Your task to perform on an android device: change notification settings in the gmail app Image 0: 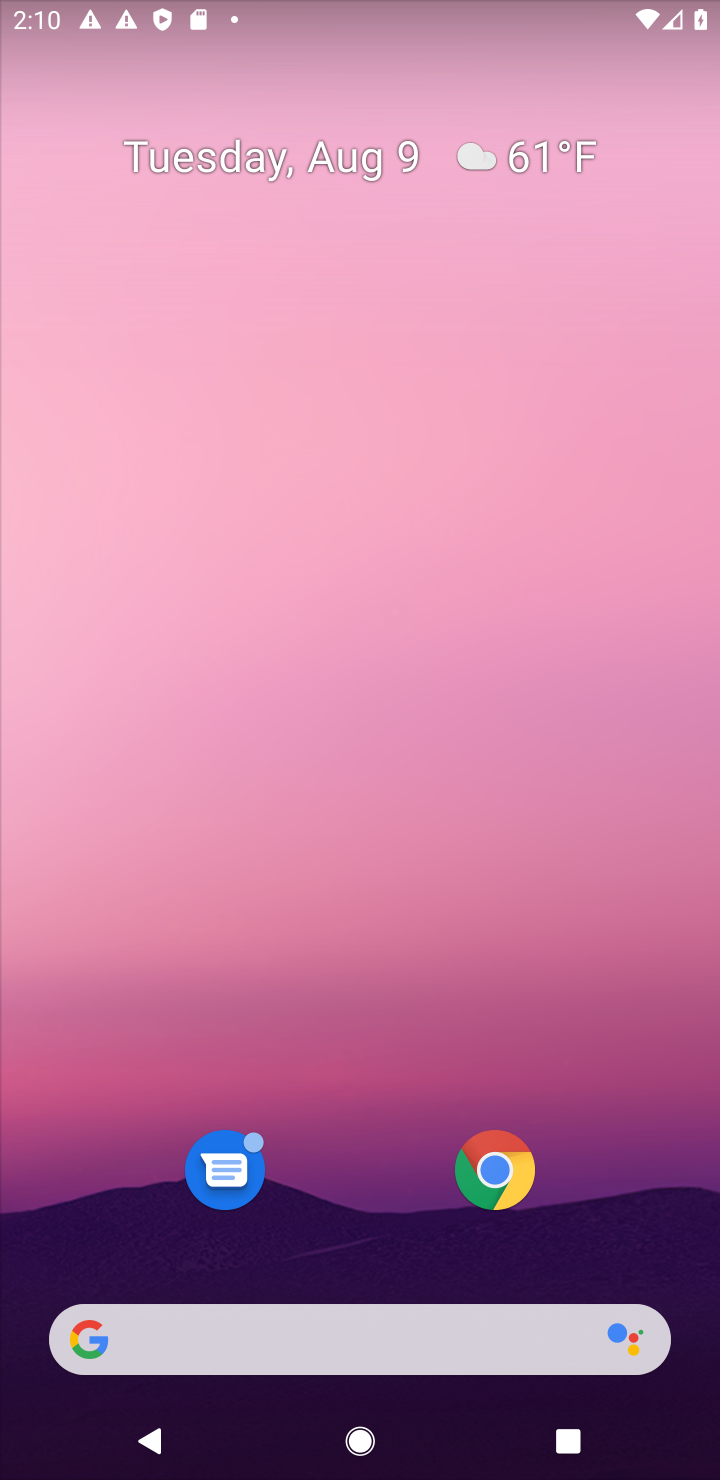
Step 0: drag from (387, 1236) to (430, 23)
Your task to perform on an android device: change notification settings in the gmail app Image 1: 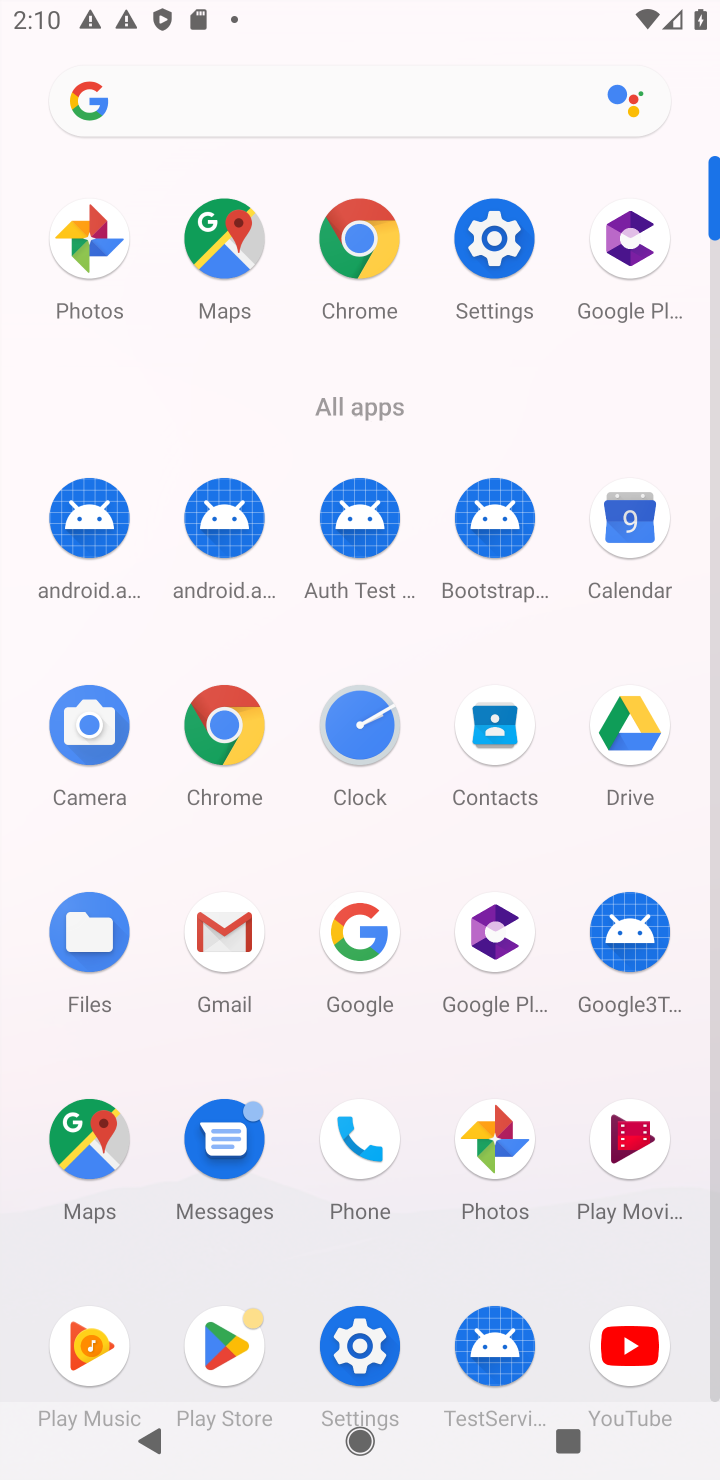
Step 1: click (225, 965)
Your task to perform on an android device: change notification settings in the gmail app Image 2: 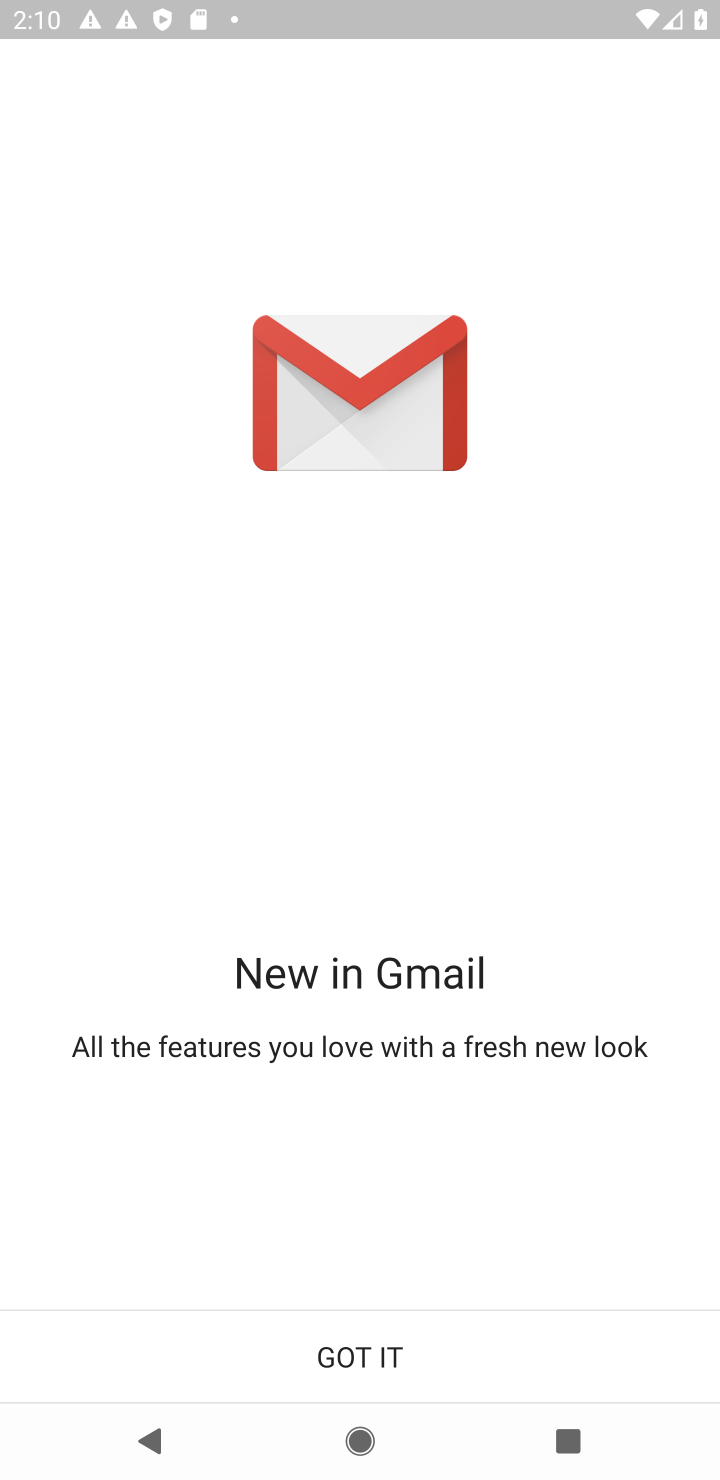
Step 2: click (381, 1367)
Your task to perform on an android device: change notification settings in the gmail app Image 3: 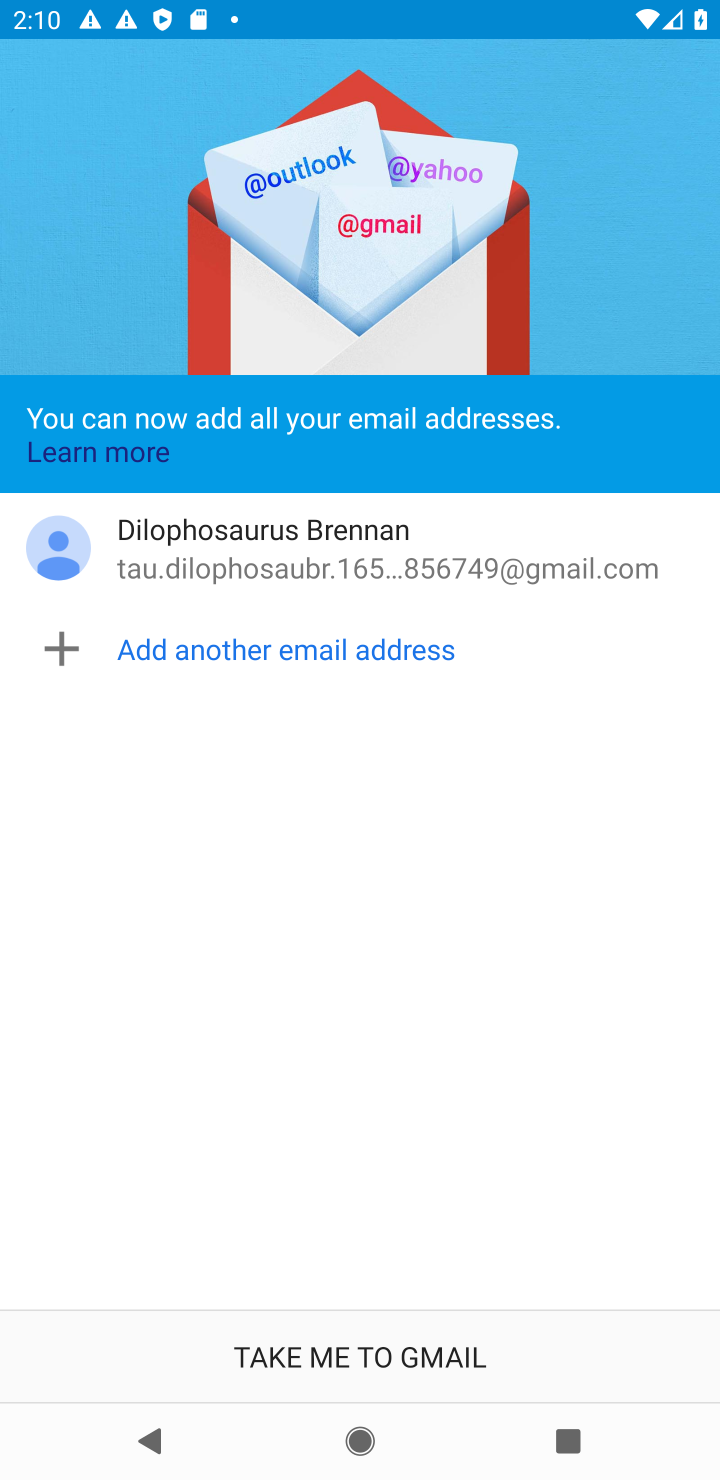
Step 3: click (403, 1346)
Your task to perform on an android device: change notification settings in the gmail app Image 4: 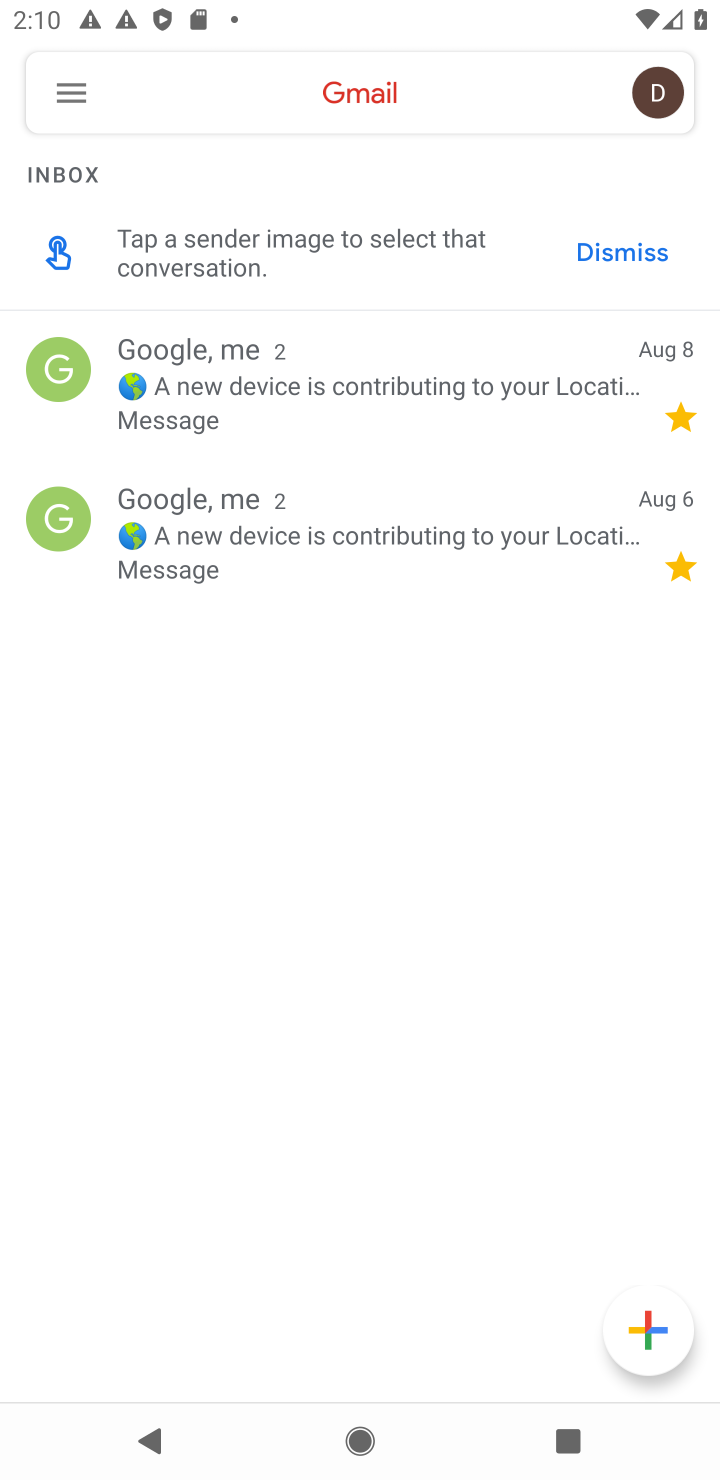
Step 4: click (62, 84)
Your task to perform on an android device: change notification settings in the gmail app Image 5: 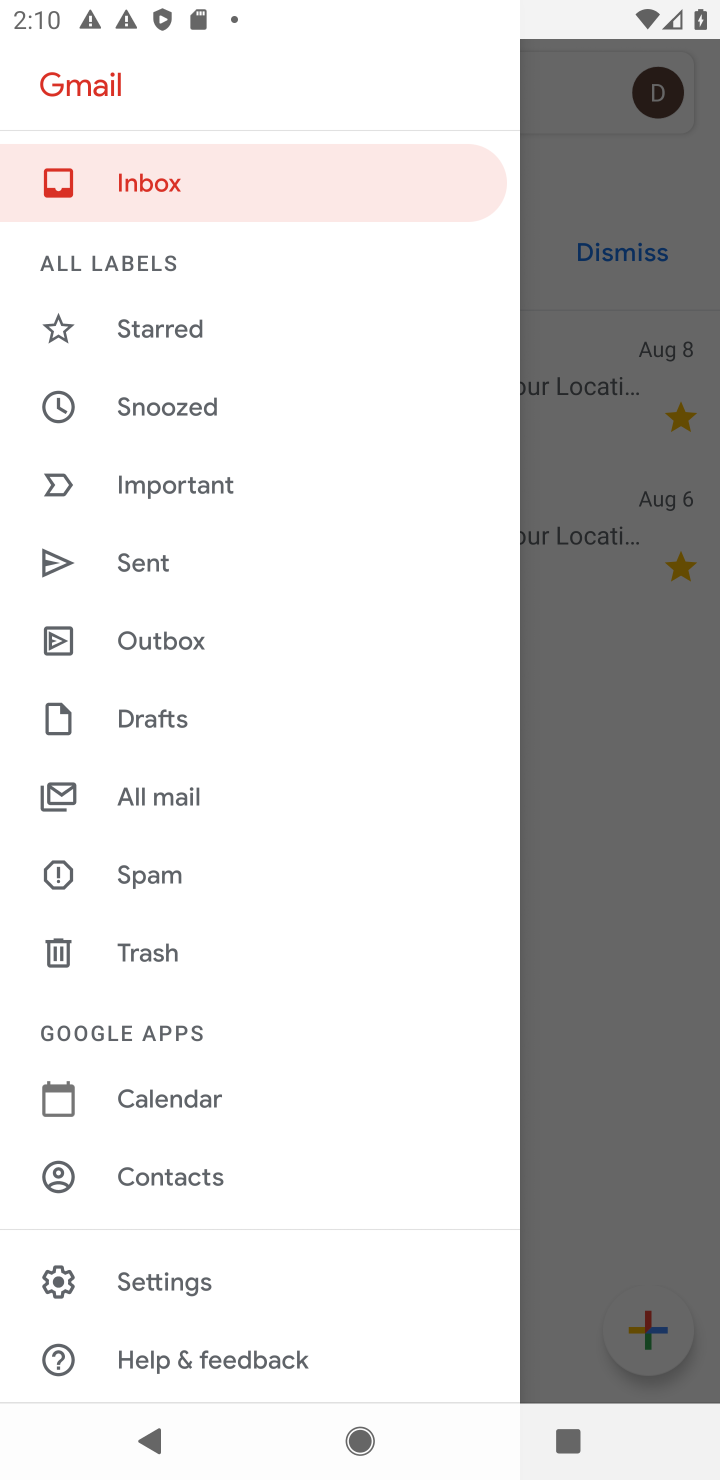
Step 5: click (177, 1295)
Your task to perform on an android device: change notification settings in the gmail app Image 6: 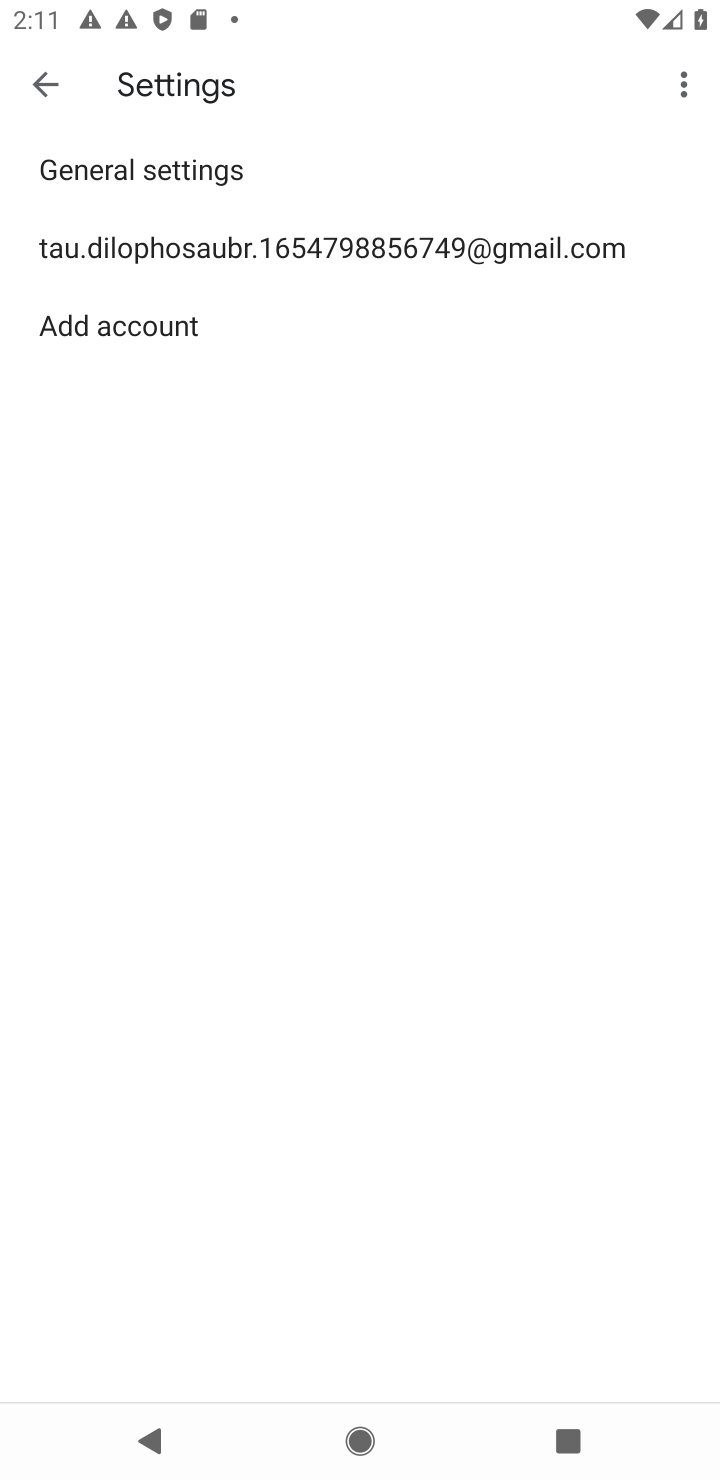
Step 6: click (169, 170)
Your task to perform on an android device: change notification settings in the gmail app Image 7: 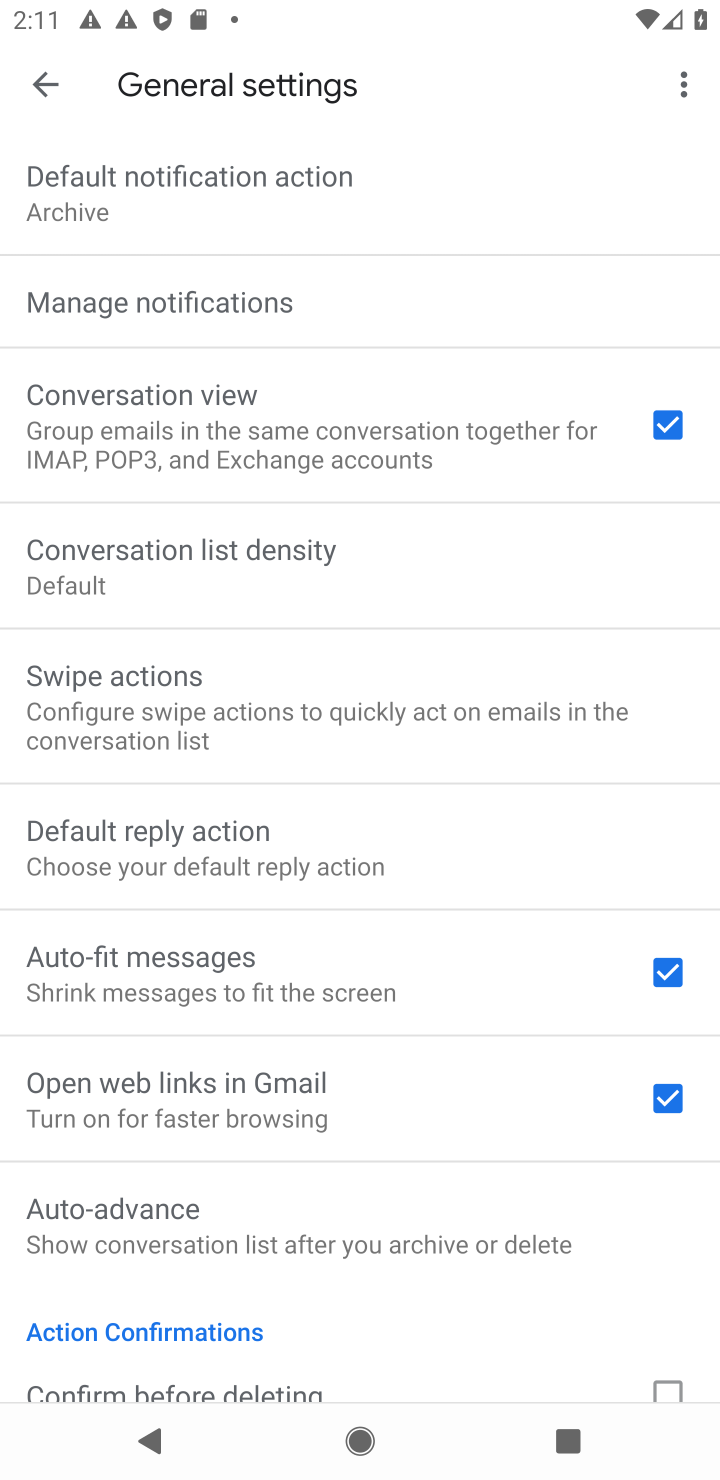
Step 7: drag from (338, 1187) to (390, 476)
Your task to perform on an android device: change notification settings in the gmail app Image 8: 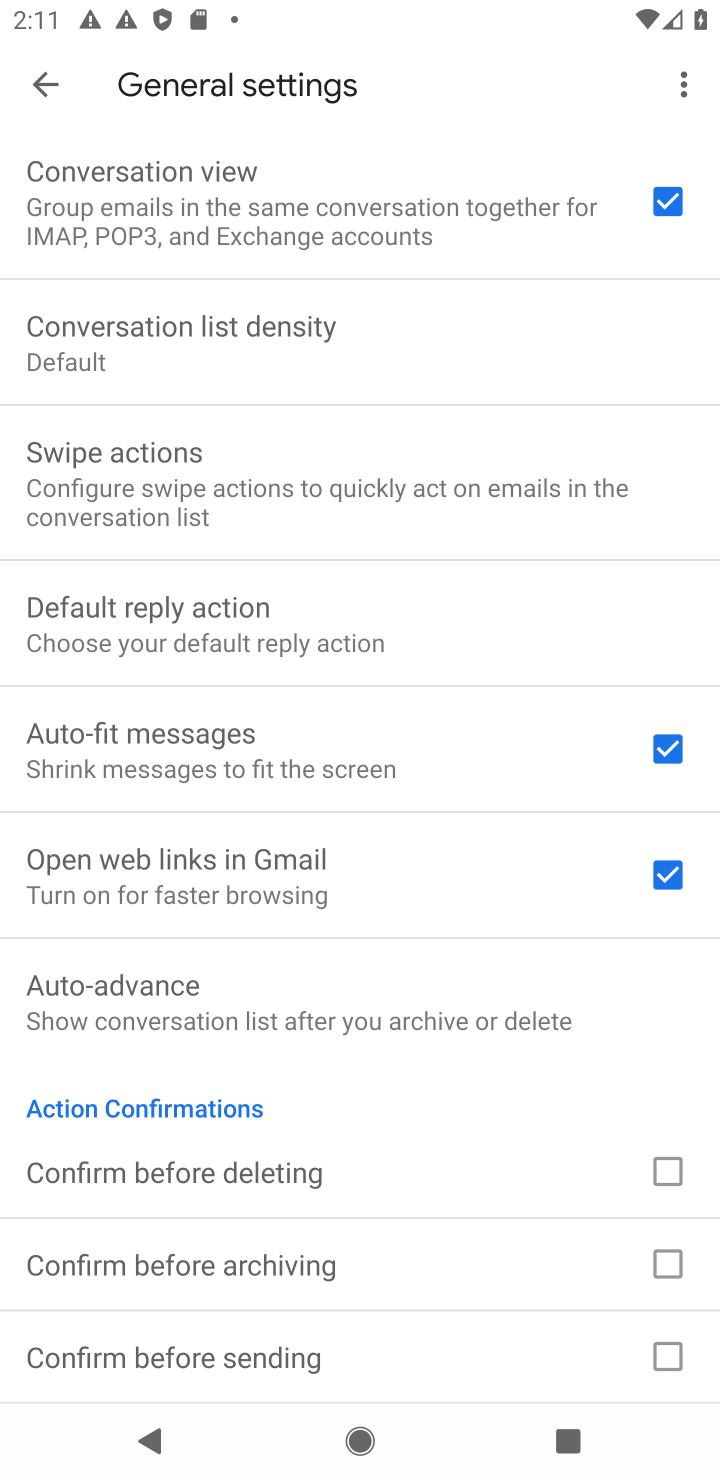
Step 8: drag from (242, 398) to (154, 1217)
Your task to perform on an android device: change notification settings in the gmail app Image 9: 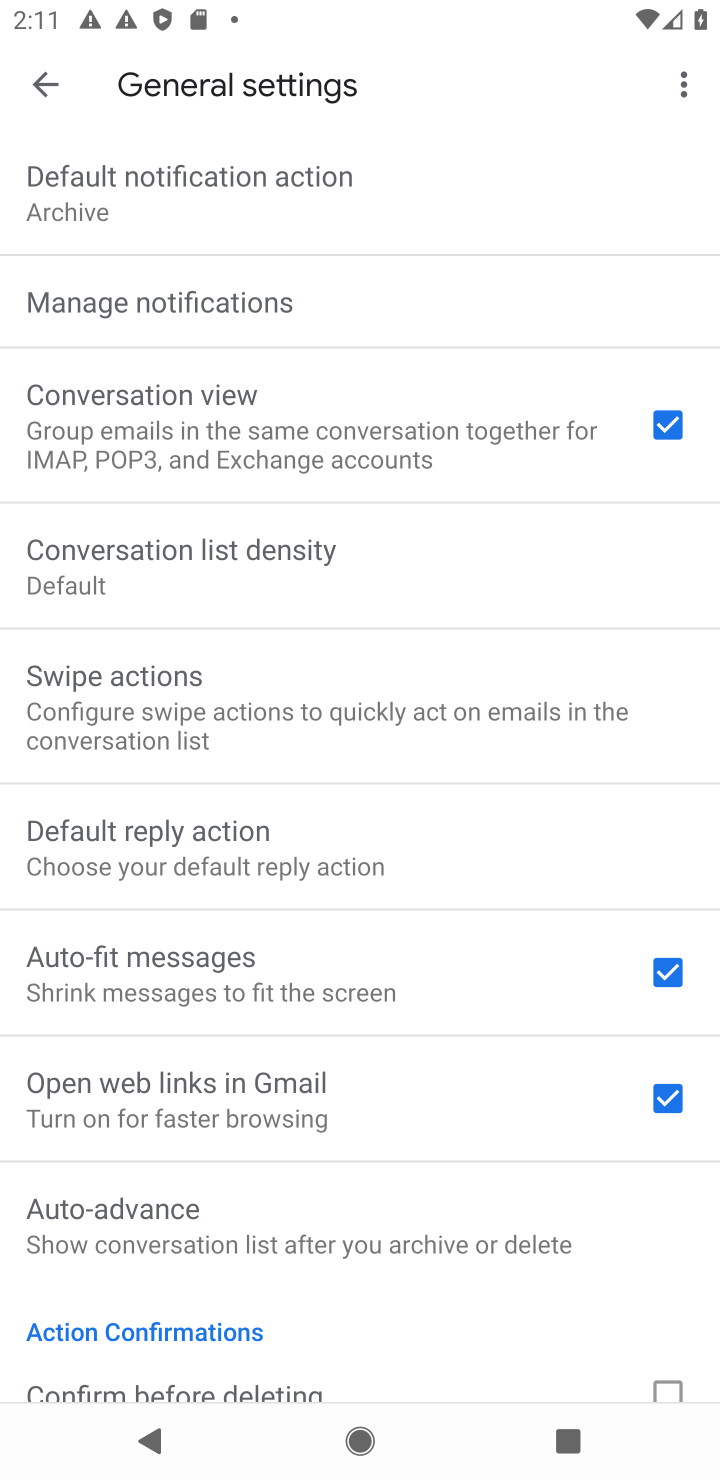
Step 9: click (181, 312)
Your task to perform on an android device: change notification settings in the gmail app Image 10: 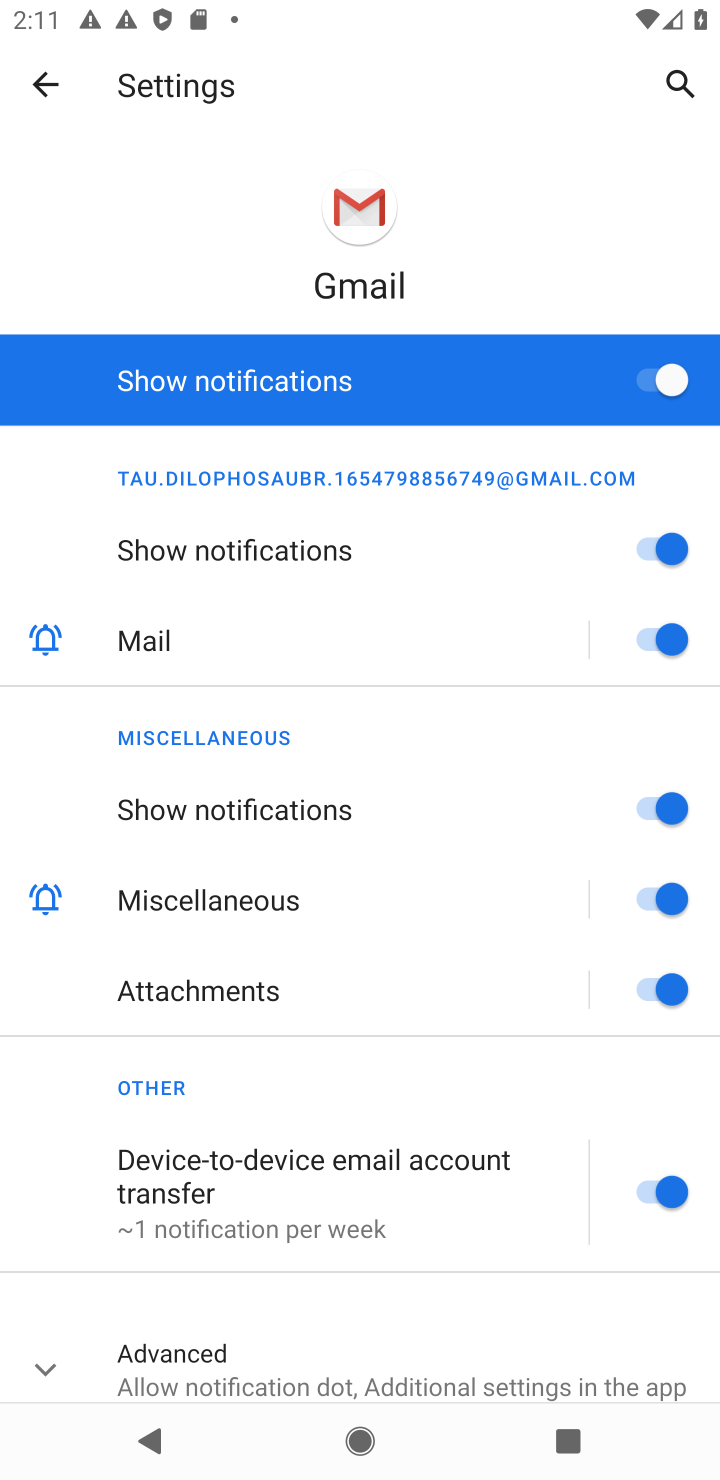
Step 10: click (614, 402)
Your task to perform on an android device: change notification settings in the gmail app Image 11: 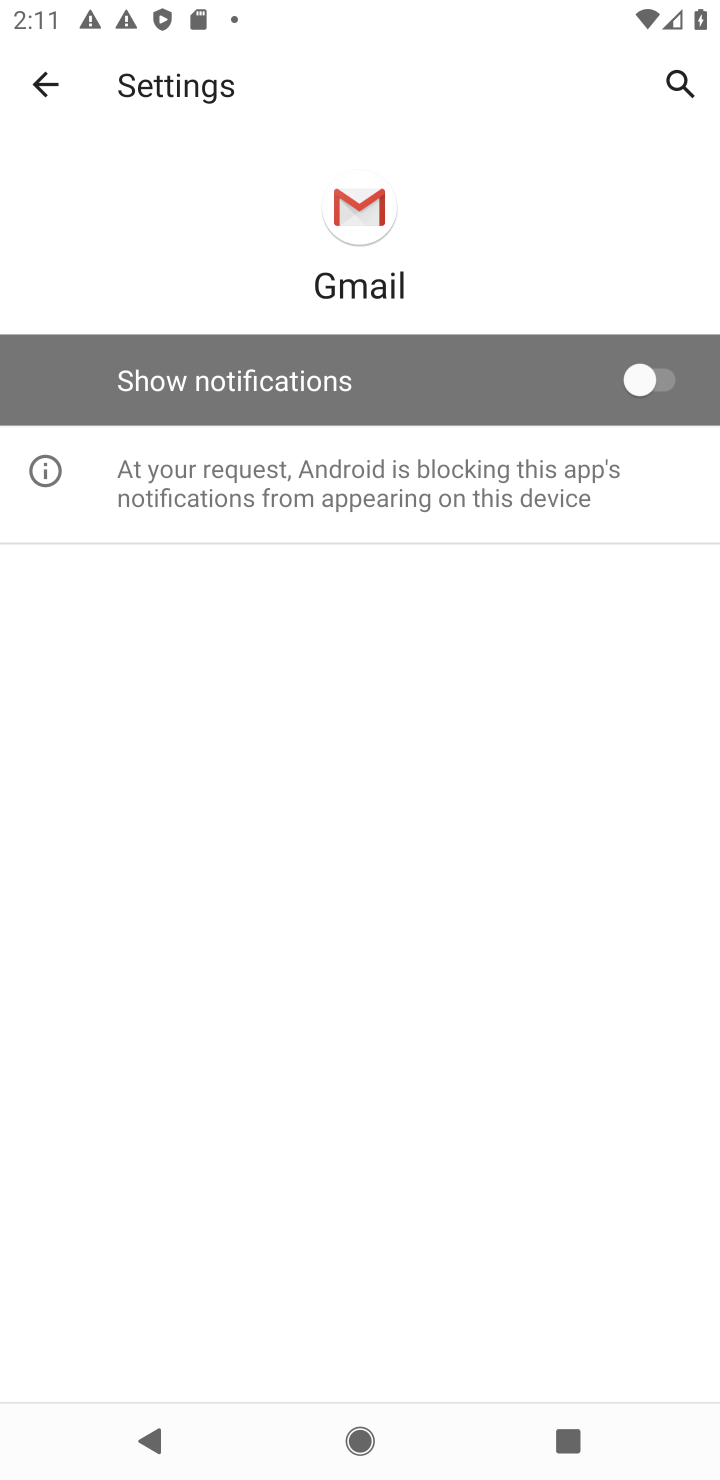
Step 11: task complete